Your task to perform on an android device: Go to settings Image 0: 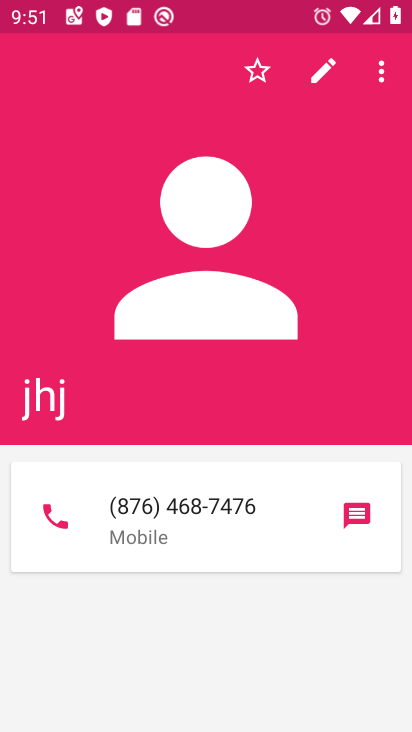
Step 0: press home button
Your task to perform on an android device: Go to settings Image 1: 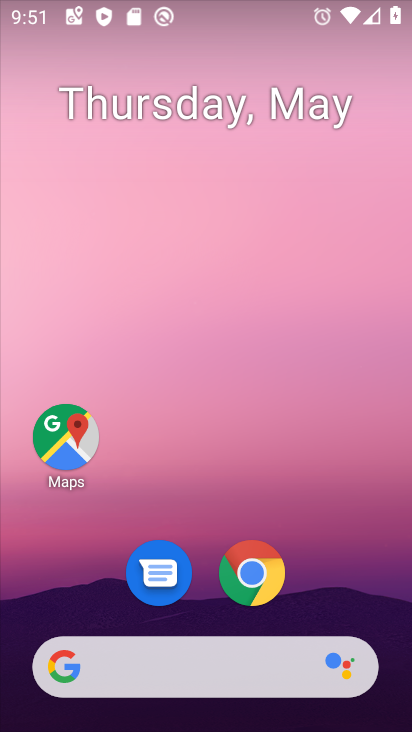
Step 1: drag from (201, 603) to (201, 207)
Your task to perform on an android device: Go to settings Image 2: 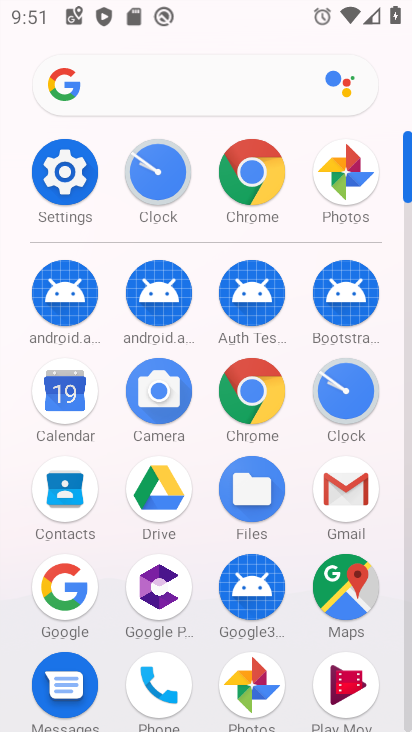
Step 2: click (38, 169)
Your task to perform on an android device: Go to settings Image 3: 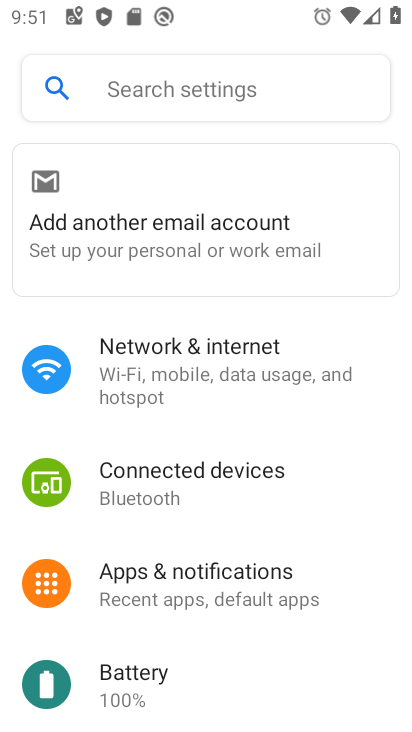
Step 3: task complete